Your task to perform on an android device: turn off notifications in google photos Image 0: 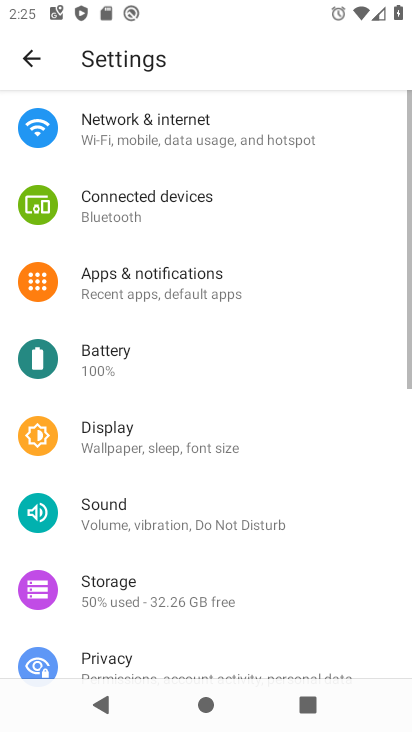
Step 0: press home button
Your task to perform on an android device: turn off notifications in google photos Image 1: 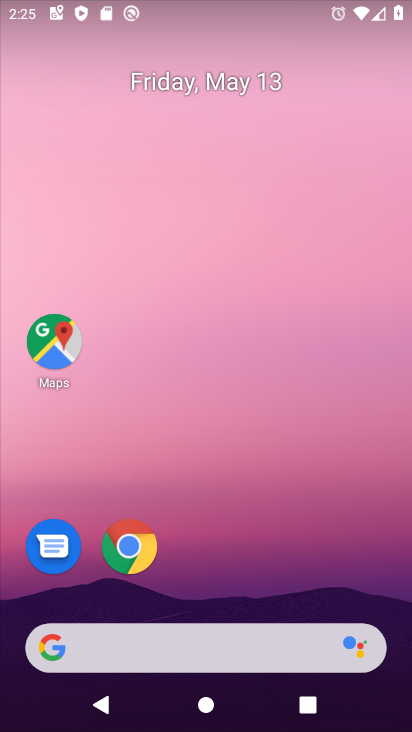
Step 1: drag from (232, 567) to (267, 110)
Your task to perform on an android device: turn off notifications in google photos Image 2: 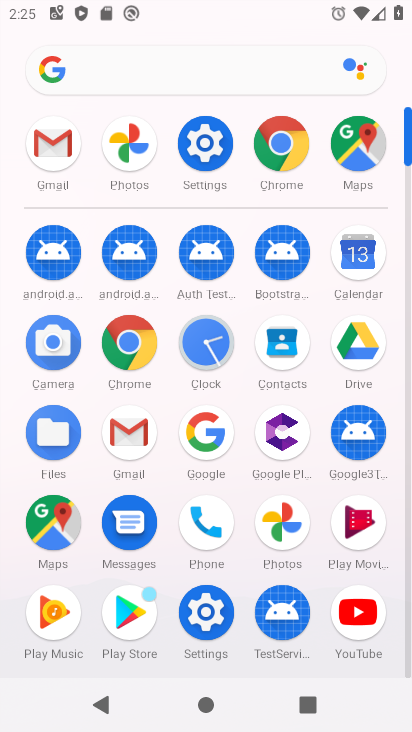
Step 2: click (286, 513)
Your task to perform on an android device: turn off notifications in google photos Image 3: 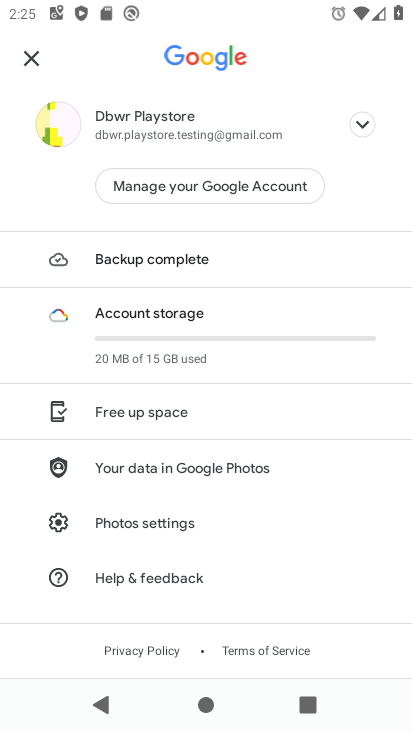
Step 3: drag from (182, 519) to (288, 129)
Your task to perform on an android device: turn off notifications in google photos Image 4: 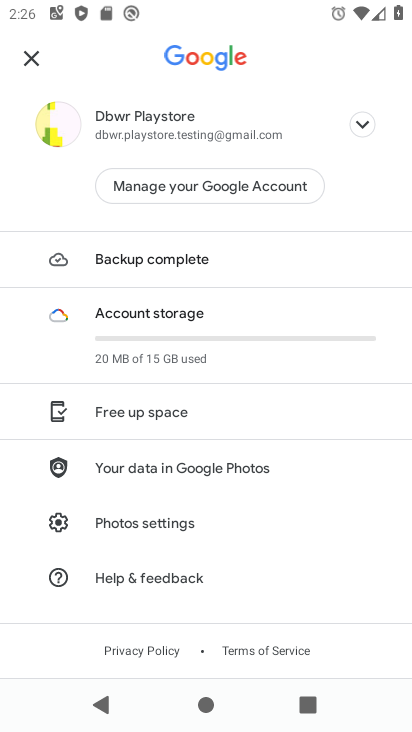
Step 4: click (171, 518)
Your task to perform on an android device: turn off notifications in google photos Image 5: 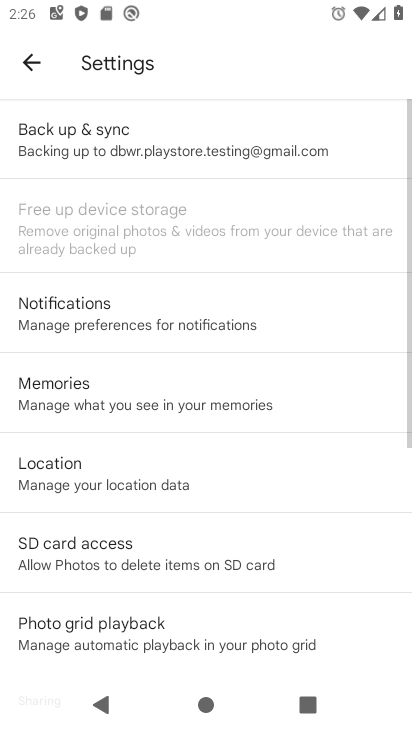
Step 5: click (143, 327)
Your task to perform on an android device: turn off notifications in google photos Image 6: 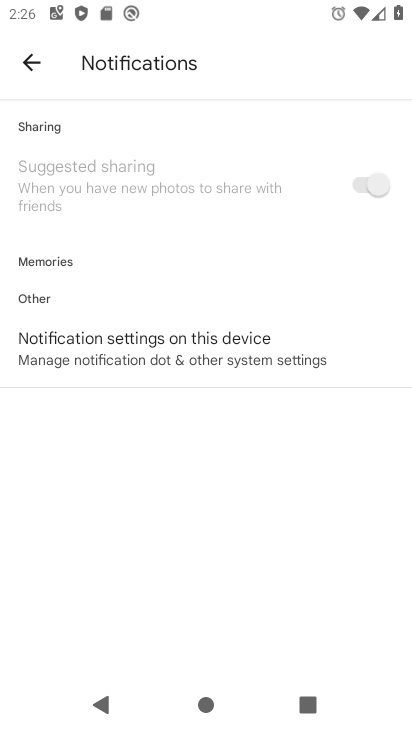
Step 6: click (246, 348)
Your task to perform on an android device: turn off notifications in google photos Image 7: 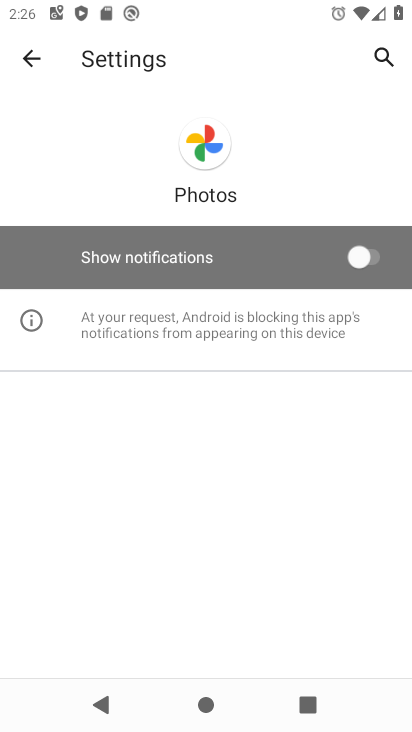
Step 7: task complete